Your task to perform on an android device: turn on the 12-hour format for clock Image 0: 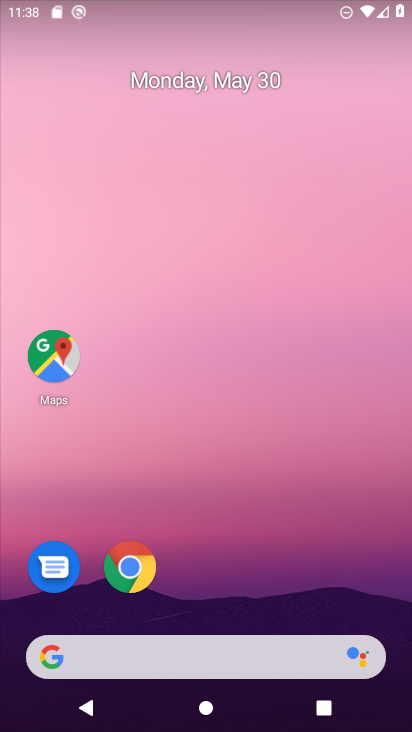
Step 0: drag from (225, 529) to (144, 7)
Your task to perform on an android device: turn on the 12-hour format for clock Image 1: 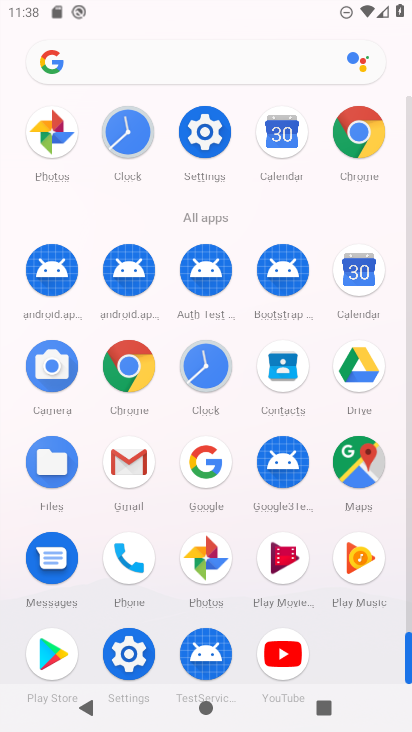
Step 1: drag from (9, 543) to (9, 262)
Your task to perform on an android device: turn on the 12-hour format for clock Image 2: 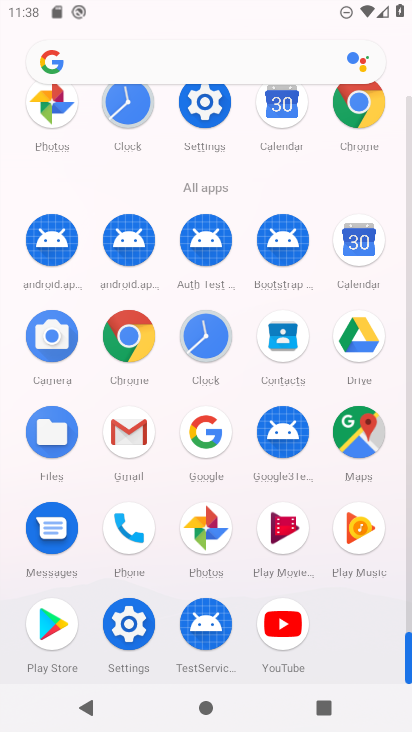
Step 2: click (206, 332)
Your task to perform on an android device: turn on the 12-hour format for clock Image 3: 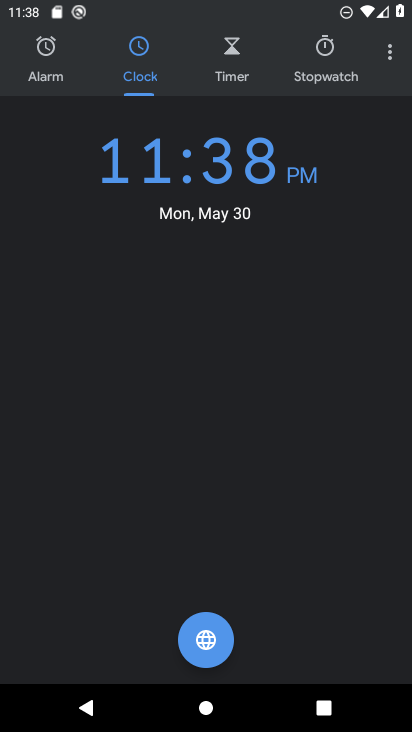
Step 3: drag from (386, 54) to (315, 104)
Your task to perform on an android device: turn on the 12-hour format for clock Image 4: 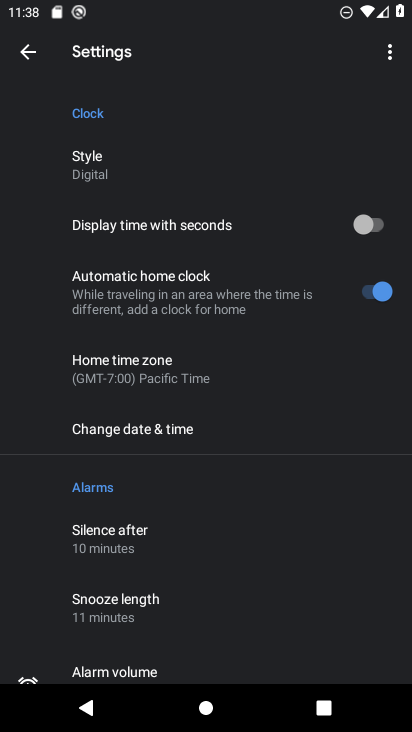
Step 4: click (171, 426)
Your task to perform on an android device: turn on the 12-hour format for clock Image 5: 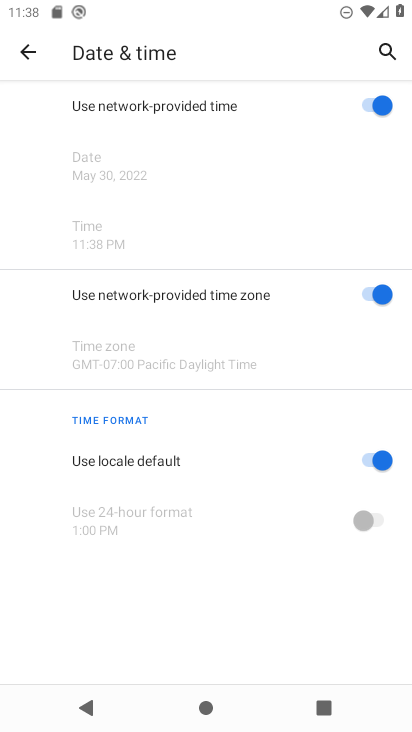
Step 5: task complete